Your task to perform on an android device: Open Google Image 0: 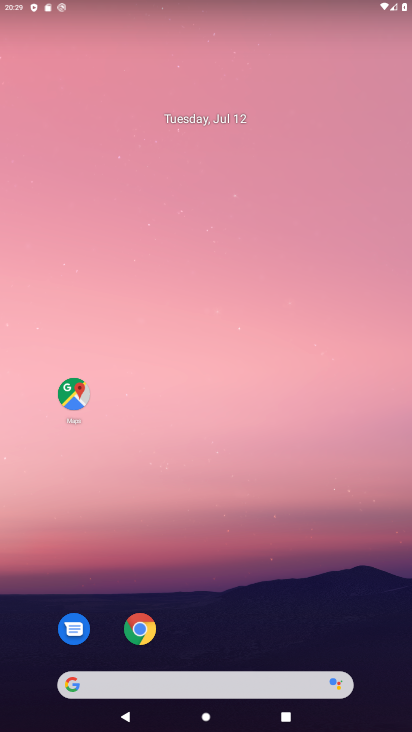
Step 0: drag from (173, 713) to (409, 211)
Your task to perform on an android device: Open Google Image 1: 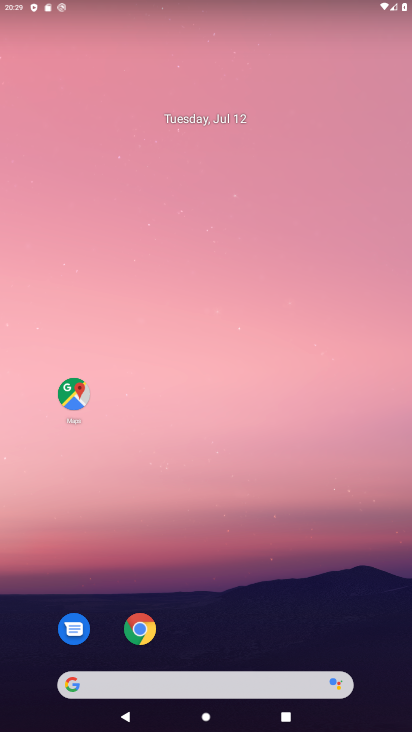
Step 1: drag from (169, 721) to (381, 151)
Your task to perform on an android device: Open Google Image 2: 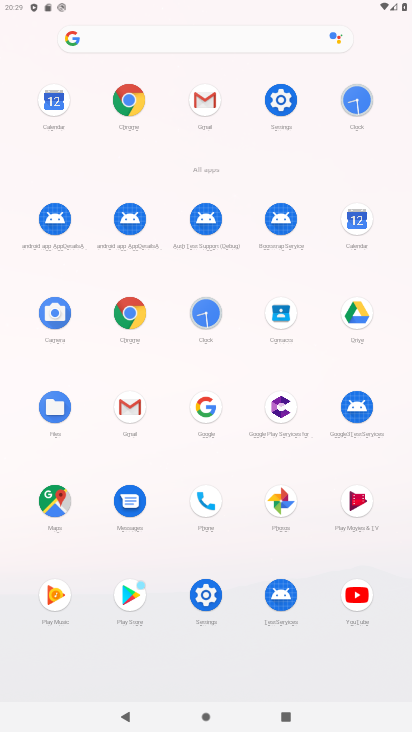
Step 2: click (213, 417)
Your task to perform on an android device: Open Google Image 3: 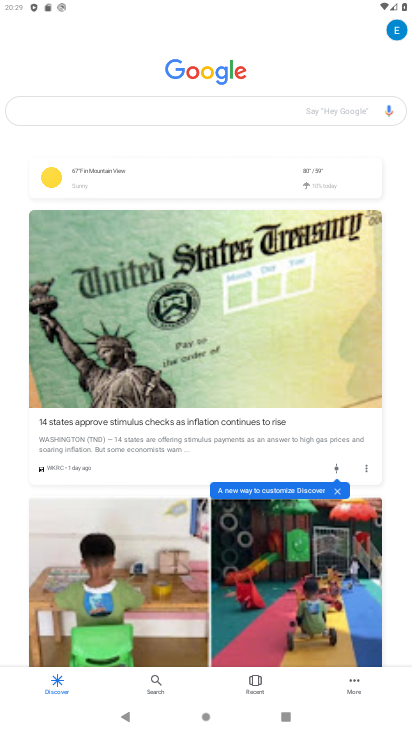
Step 3: task complete